Your task to perform on an android device: Open my contact list Image 0: 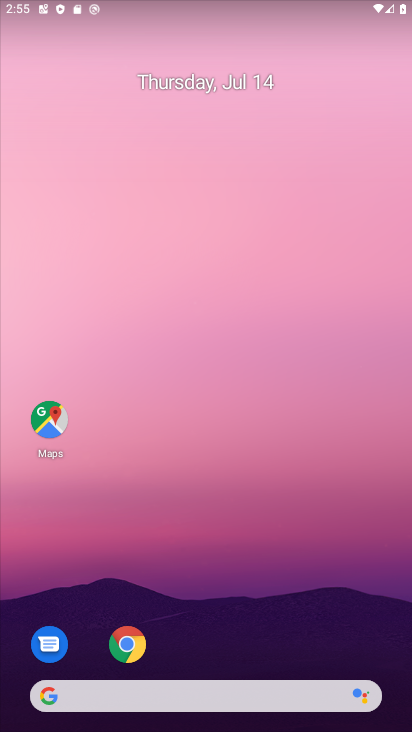
Step 0: press home button
Your task to perform on an android device: Open my contact list Image 1: 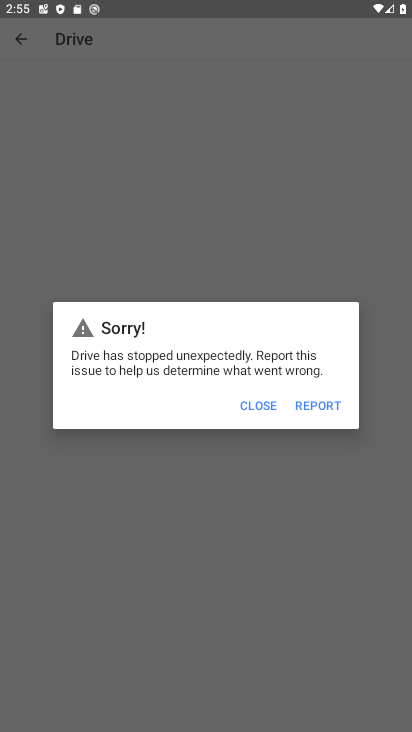
Step 1: press home button
Your task to perform on an android device: Open my contact list Image 2: 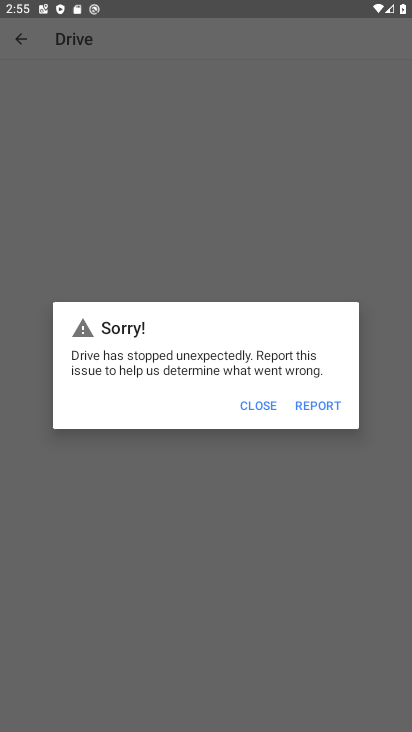
Step 2: click (286, 51)
Your task to perform on an android device: Open my contact list Image 3: 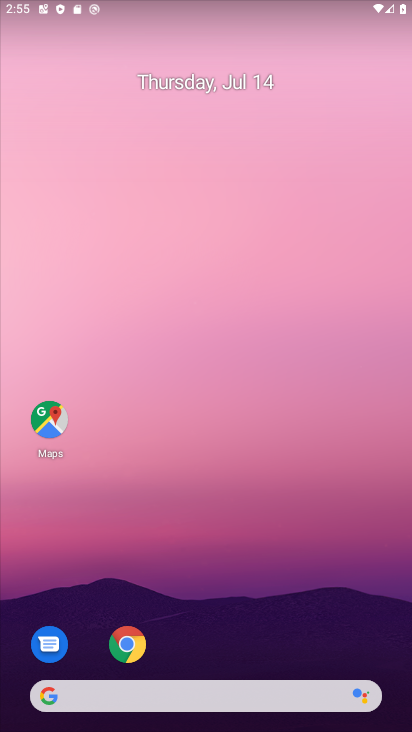
Step 3: press home button
Your task to perform on an android device: Open my contact list Image 4: 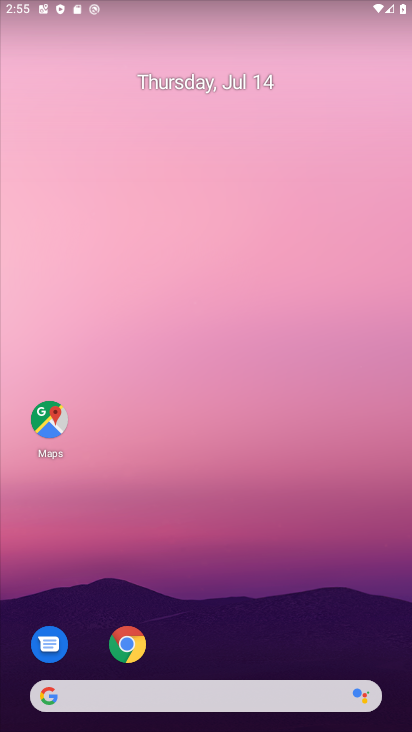
Step 4: drag from (205, 663) to (250, 120)
Your task to perform on an android device: Open my contact list Image 5: 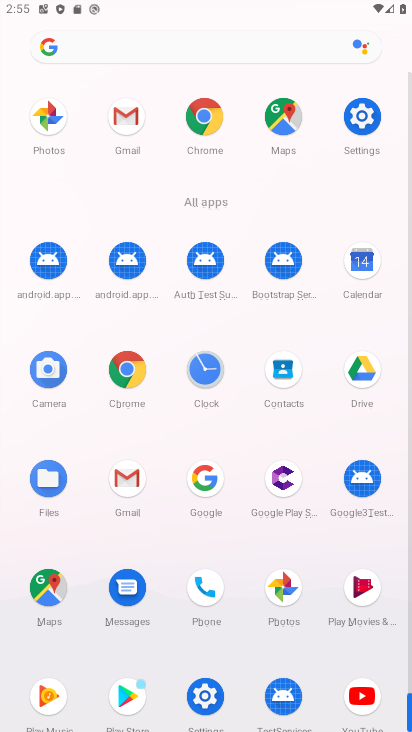
Step 5: click (90, 45)
Your task to perform on an android device: Open my contact list Image 6: 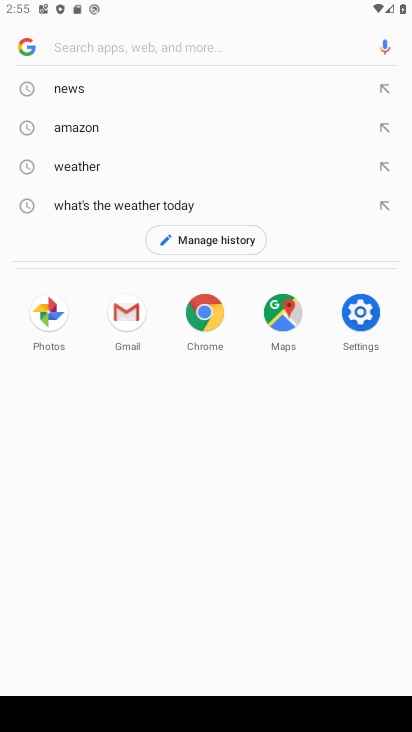
Step 6: press home button
Your task to perform on an android device: Open my contact list Image 7: 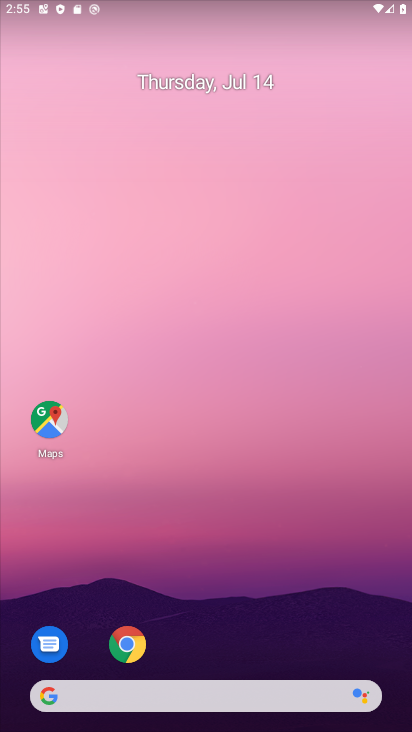
Step 7: drag from (157, 574) to (228, 71)
Your task to perform on an android device: Open my contact list Image 8: 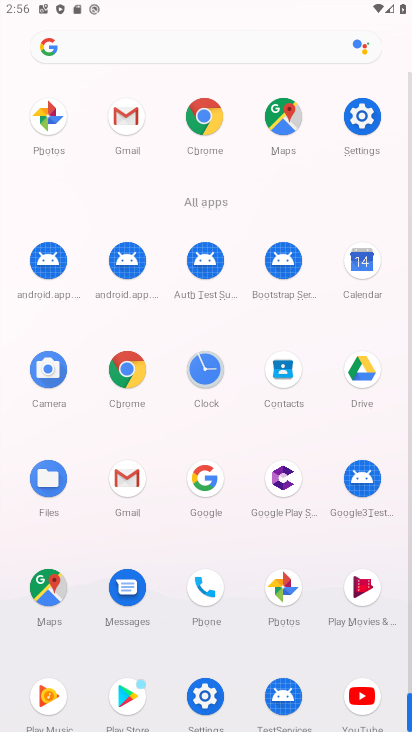
Step 8: click (285, 367)
Your task to perform on an android device: Open my contact list Image 9: 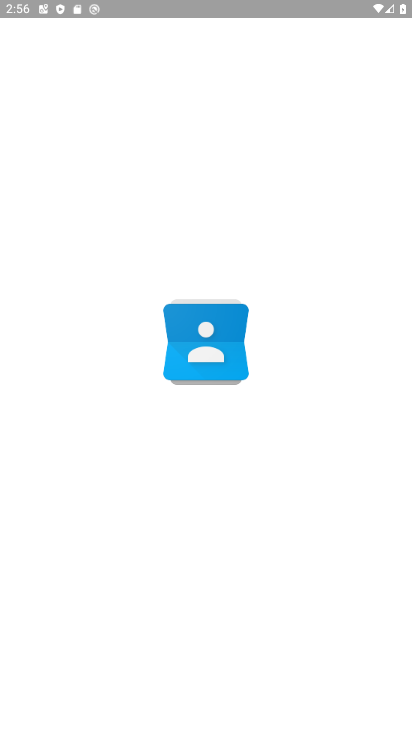
Step 9: task complete